Your task to perform on an android device: turn off sleep mode Image 0: 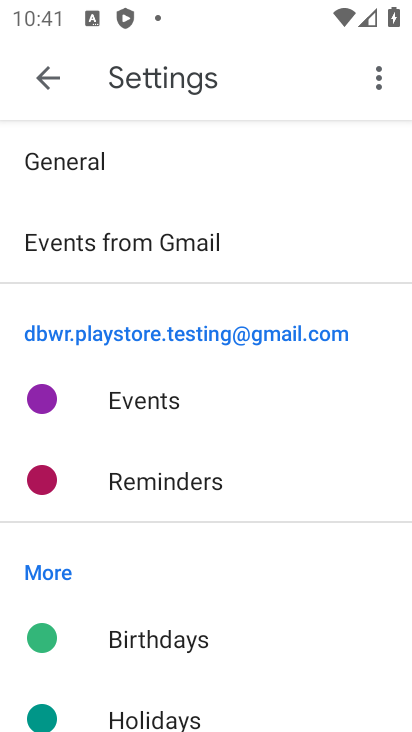
Step 0: press home button
Your task to perform on an android device: turn off sleep mode Image 1: 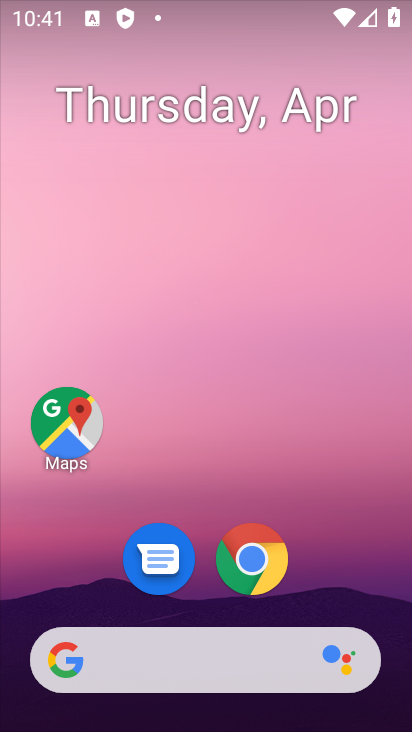
Step 1: drag from (281, 725) to (341, 7)
Your task to perform on an android device: turn off sleep mode Image 2: 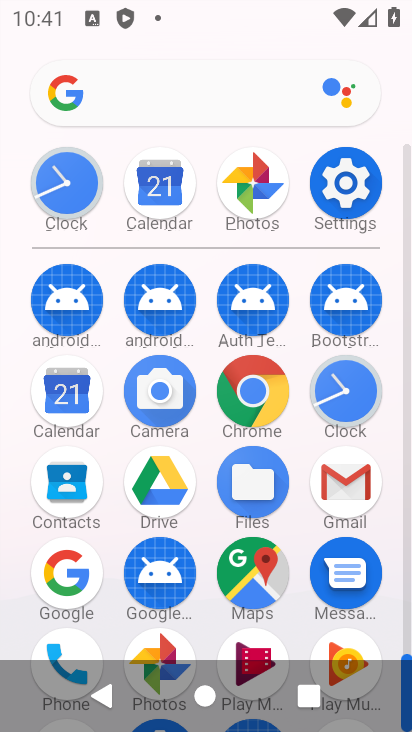
Step 2: click (352, 168)
Your task to perform on an android device: turn off sleep mode Image 3: 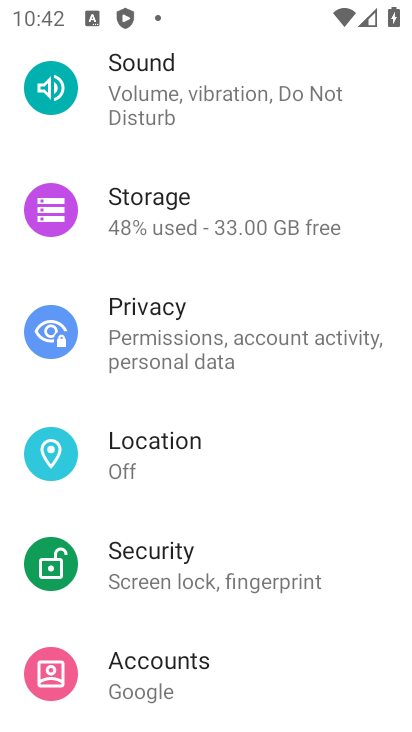
Step 3: drag from (342, 164) to (313, 606)
Your task to perform on an android device: turn off sleep mode Image 4: 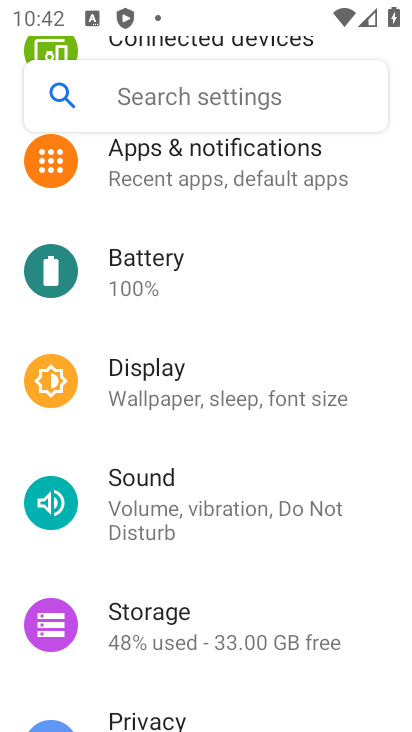
Step 4: click (301, 412)
Your task to perform on an android device: turn off sleep mode Image 5: 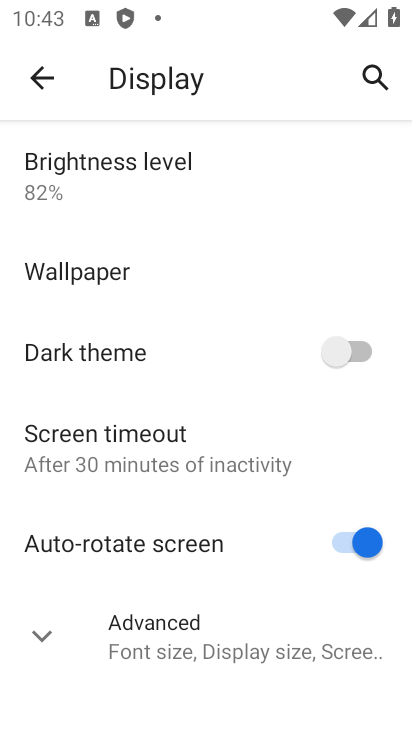
Step 5: task complete